Your task to perform on an android device: Open maps Image 0: 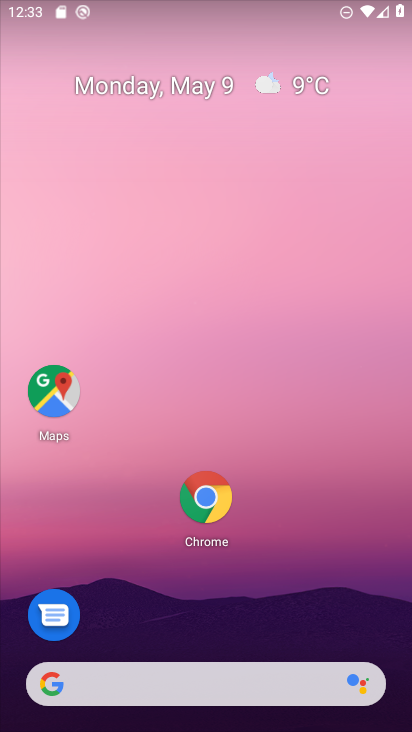
Step 0: drag from (336, 561) to (339, 85)
Your task to perform on an android device: Open maps Image 1: 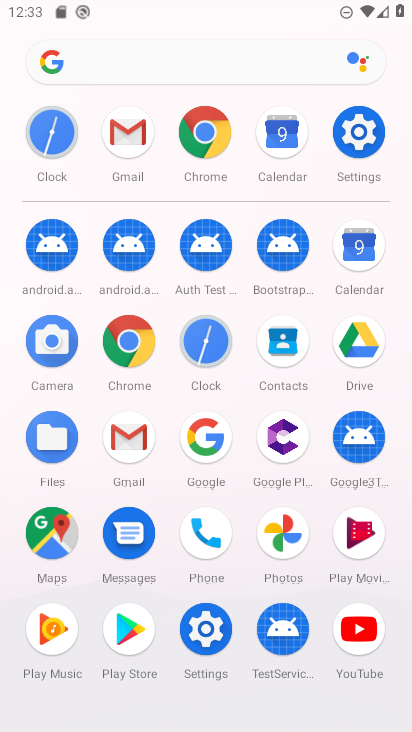
Step 1: click (54, 524)
Your task to perform on an android device: Open maps Image 2: 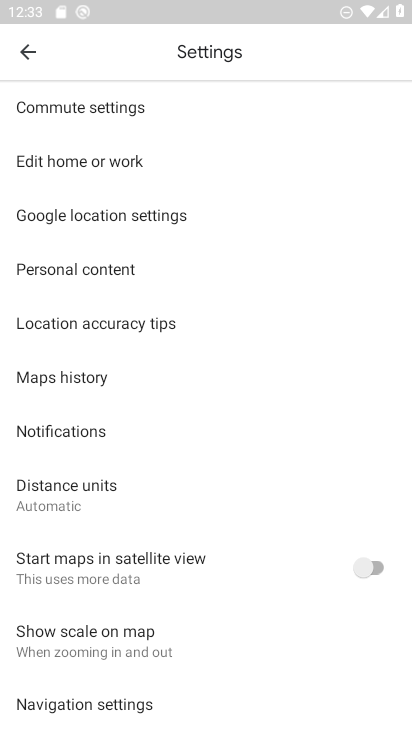
Step 2: task complete